Your task to perform on an android device: turn on data saver in the chrome app Image 0: 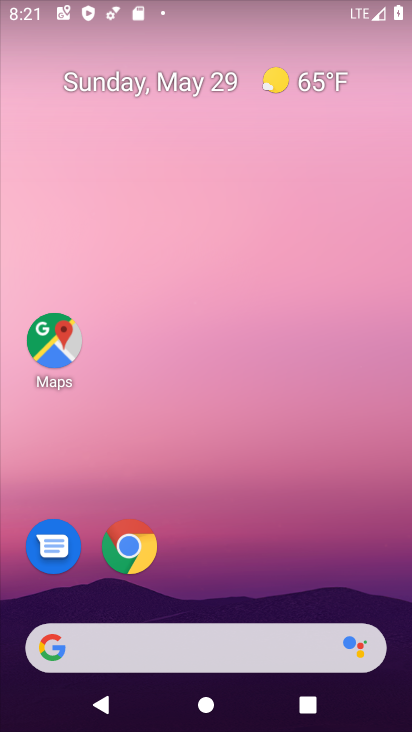
Step 0: drag from (238, 605) to (328, 181)
Your task to perform on an android device: turn on data saver in the chrome app Image 1: 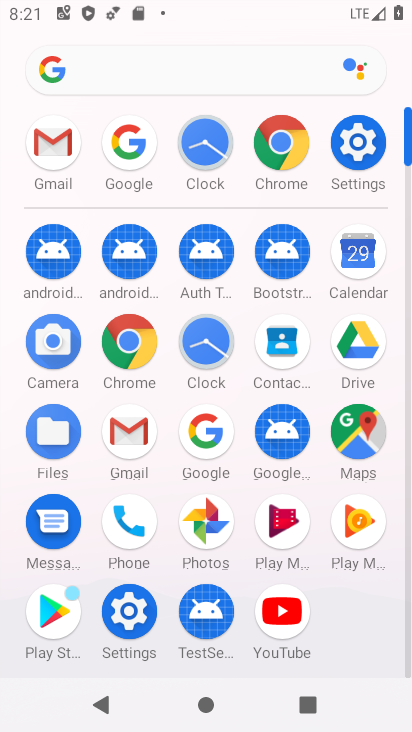
Step 1: click (283, 153)
Your task to perform on an android device: turn on data saver in the chrome app Image 2: 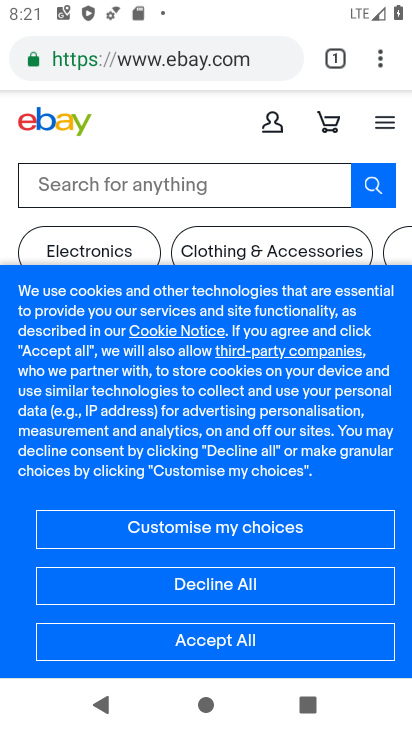
Step 2: click (384, 55)
Your task to perform on an android device: turn on data saver in the chrome app Image 3: 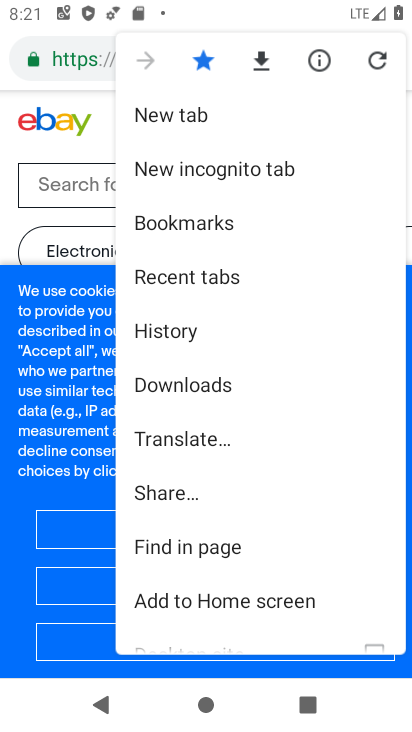
Step 3: drag from (179, 615) to (213, 203)
Your task to perform on an android device: turn on data saver in the chrome app Image 4: 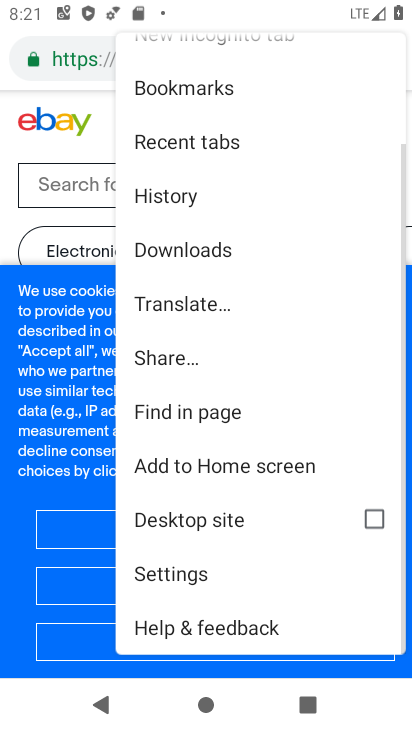
Step 4: click (195, 576)
Your task to perform on an android device: turn on data saver in the chrome app Image 5: 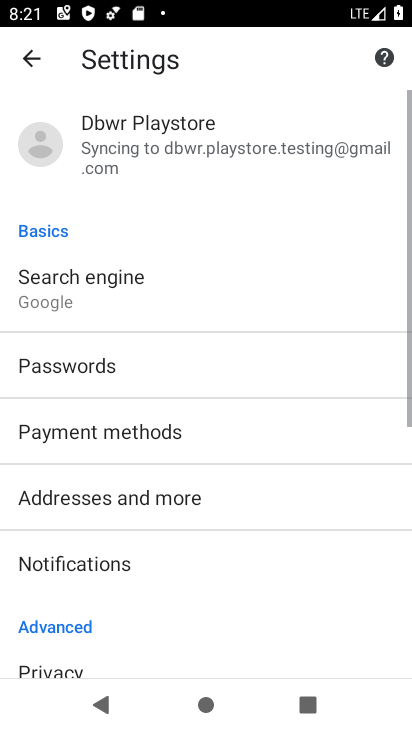
Step 5: drag from (115, 667) to (197, 213)
Your task to perform on an android device: turn on data saver in the chrome app Image 6: 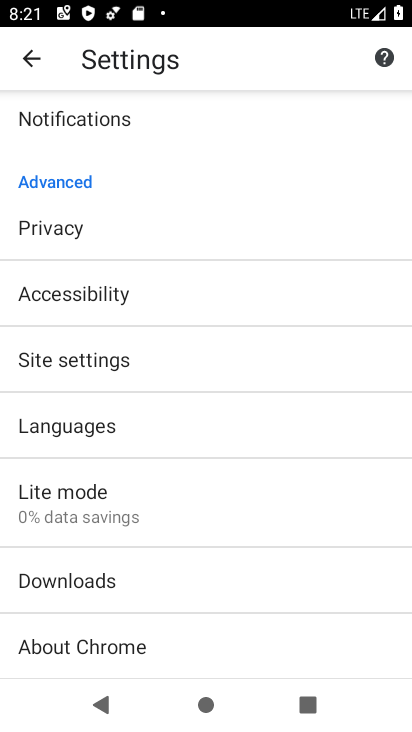
Step 6: click (79, 505)
Your task to perform on an android device: turn on data saver in the chrome app Image 7: 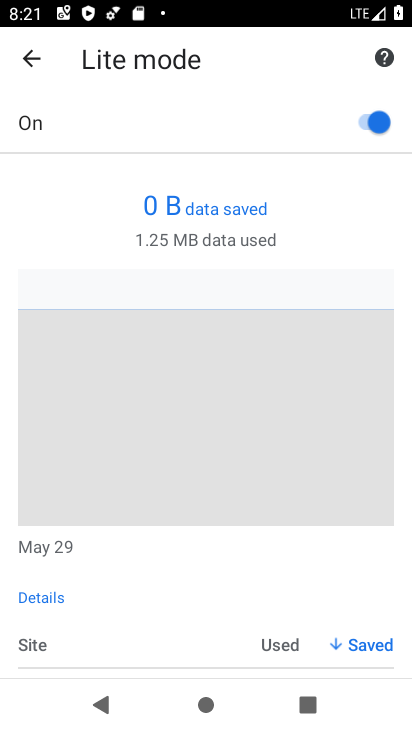
Step 7: task complete